Your task to perform on an android device: Go to sound settings Image 0: 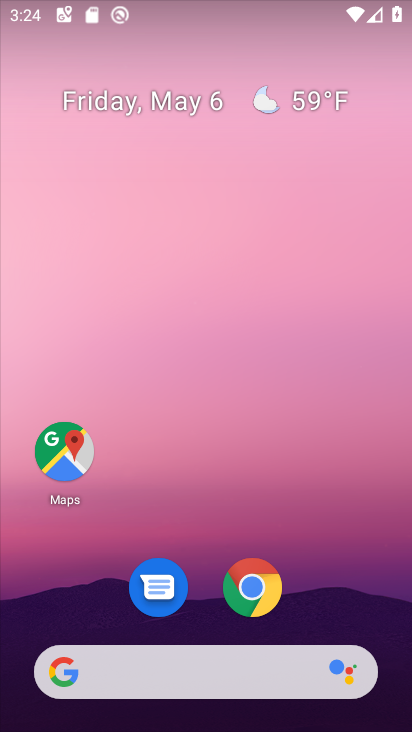
Step 0: drag from (366, 571) to (298, 26)
Your task to perform on an android device: Go to sound settings Image 1: 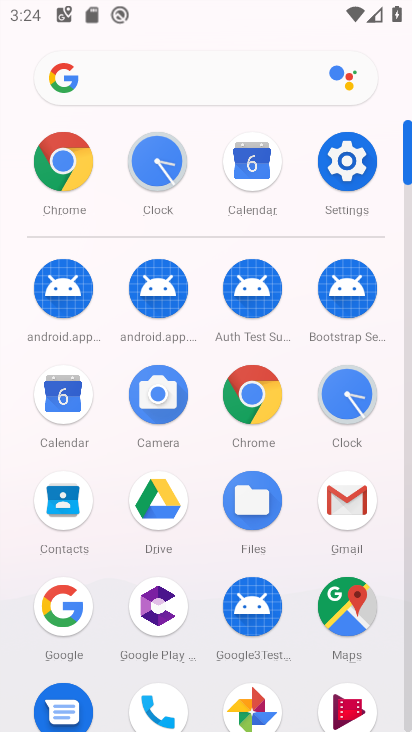
Step 1: click (356, 149)
Your task to perform on an android device: Go to sound settings Image 2: 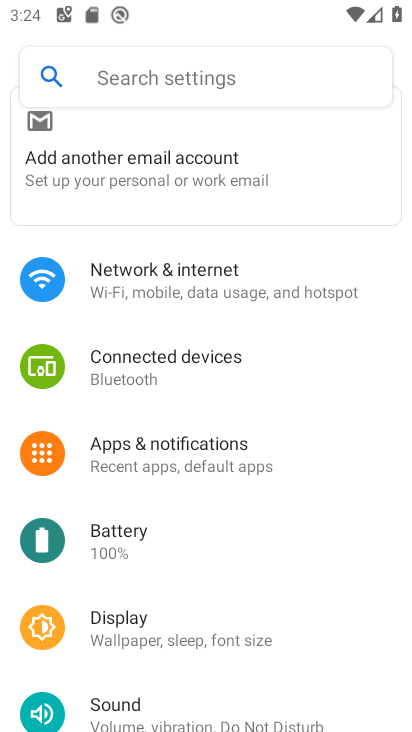
Step 2: click (191, 713)
Your task to perform on an android device: Go to sound settings Image 3: 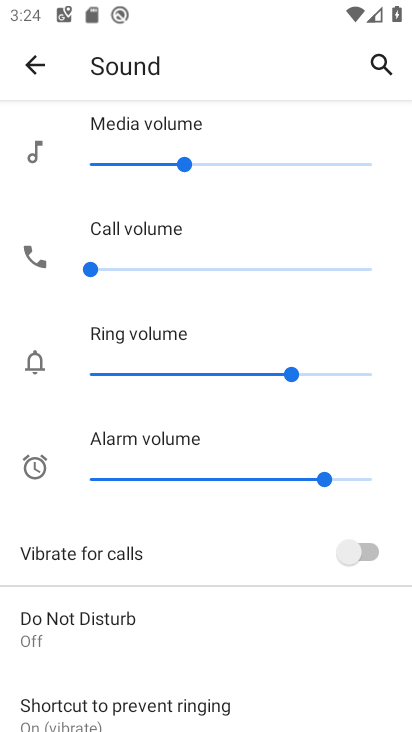
Step 3: task complete